Your task to perform on an android device: open device folders in google photos Image 0: 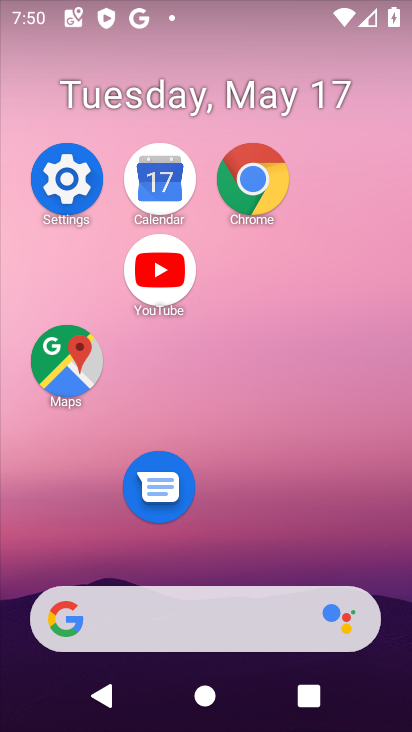
Step 0: drag from (306, 377) to (308, 120)
Your task to perform on an android device: open device folders in google photos Image 1: 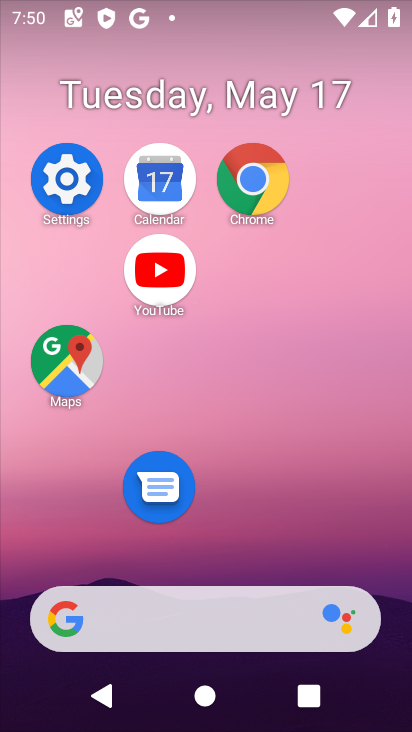
Step 1: drag from (240, 516) to (237, 68)
Your task to perform on an android device: open device folders in google photos Image 2: 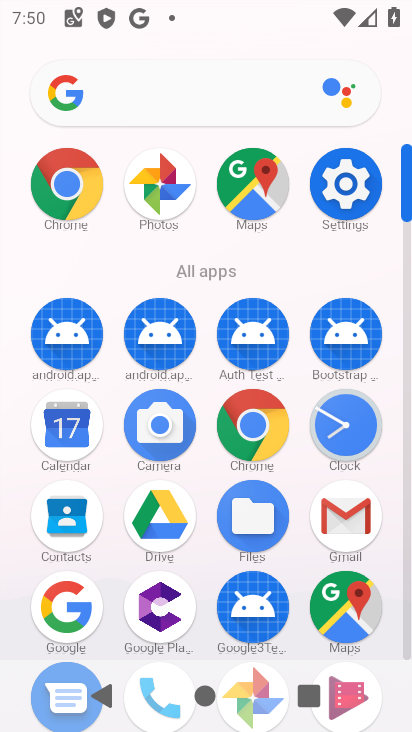
Step 2: drag from (178, 189) to (62, 266)
Your task to perform on an android device: open device folders in google photos Image 3: 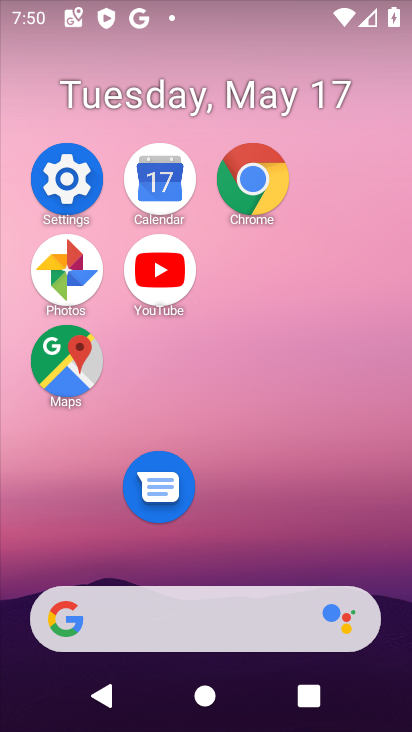
Step 3: click (71, 265)
Your task to perform on an android device: open device folders in google photos Image 4: 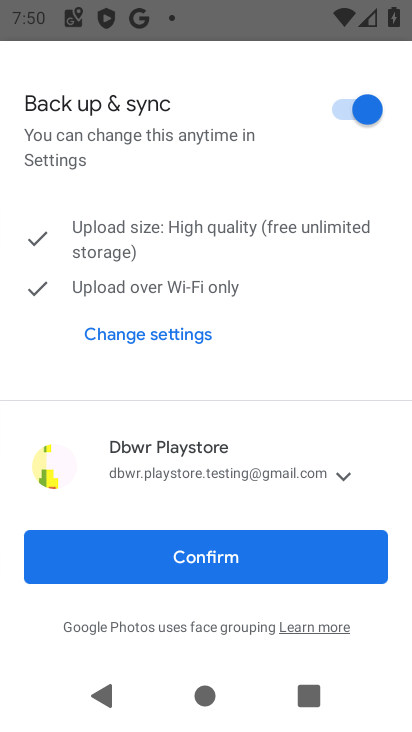
Step 4: click (298, 533)
Your task to perform on an android device: open device folders in google photos Image 5: 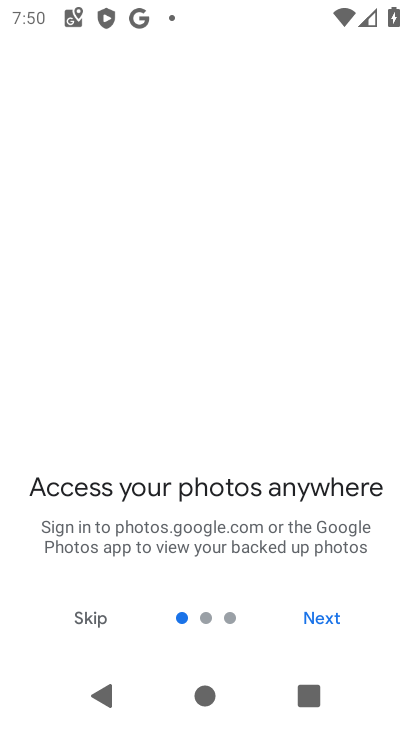
Step 5: click (336, 615)
Your task to perform on an android device: open device folders in google photos Image 6: 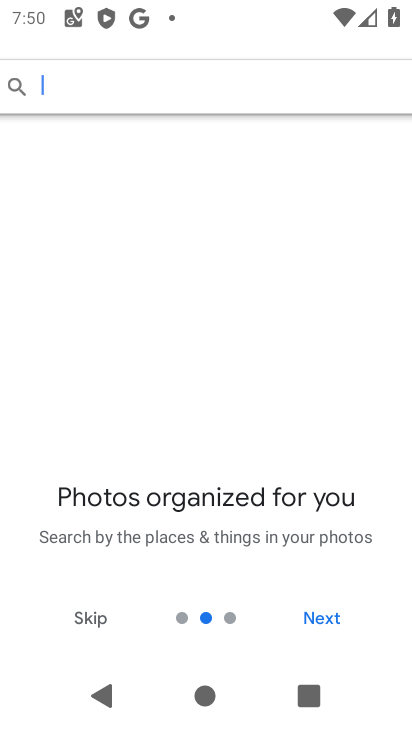
Step 6: click (336, 615)
Your task to perform on an android device: open device folders in google photos Image 7: 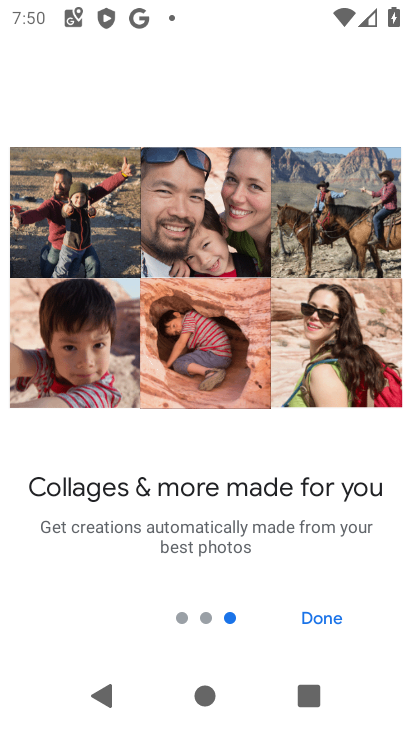
Step 7: click (336, 615)
Your task to perform on an android device: open device folders in google photos Image 8: 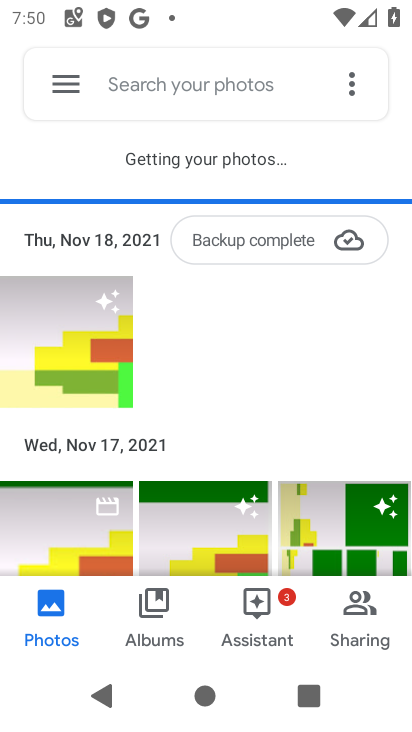
Step 8: click (39, 80)
Your task to perform on an android device: open device folders in google photos Image 9: 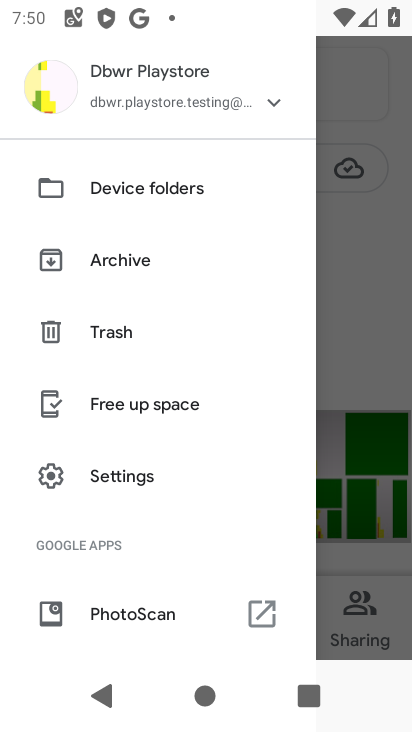
Step 9: click (206, 199)
Your task to perform on an android device: open device folders in google photos Image 10: 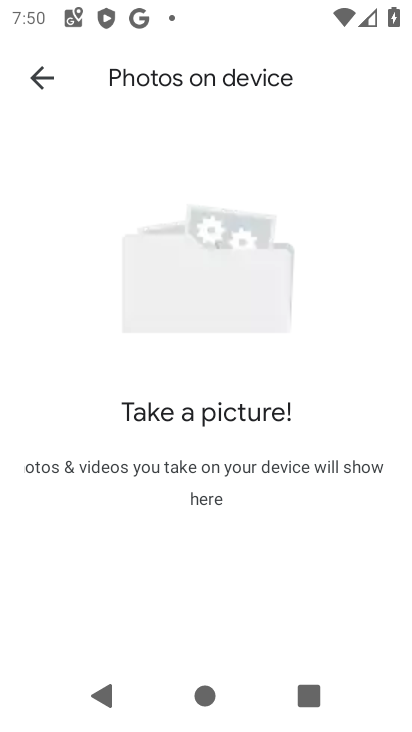
Step 10: task complete